Your task to perform on an android device: remove spam from my inbox in the gmail app Image 0: 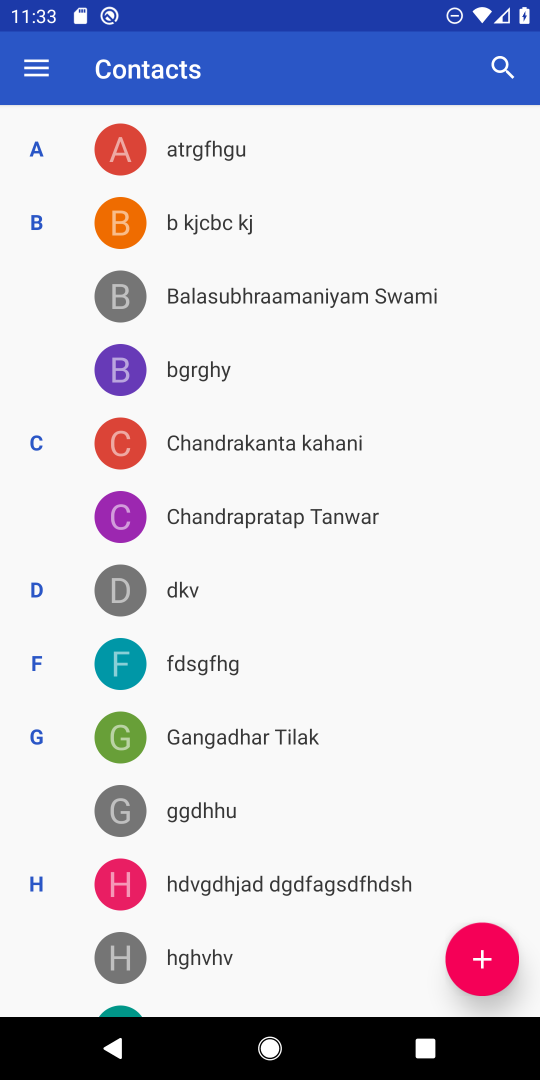
Step 0: press back button
Your task to perform on an android device: remove spam from my inbox in the gmail app Image 1: 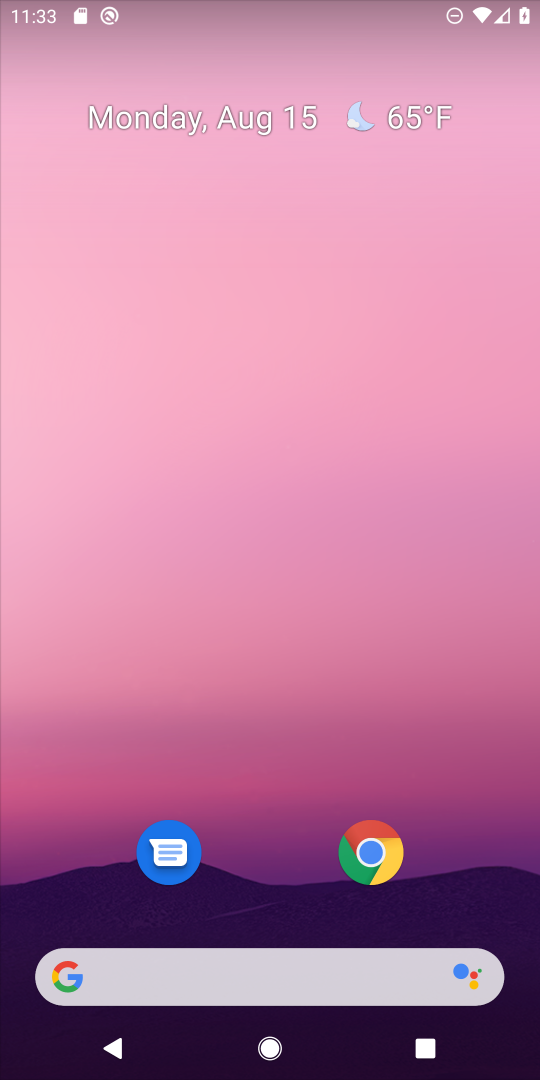
Step 1: drag from (253, 835) to (348, 10)
Your task to perform on an android device: remove spam from my inbox in the gmail app Image 2: 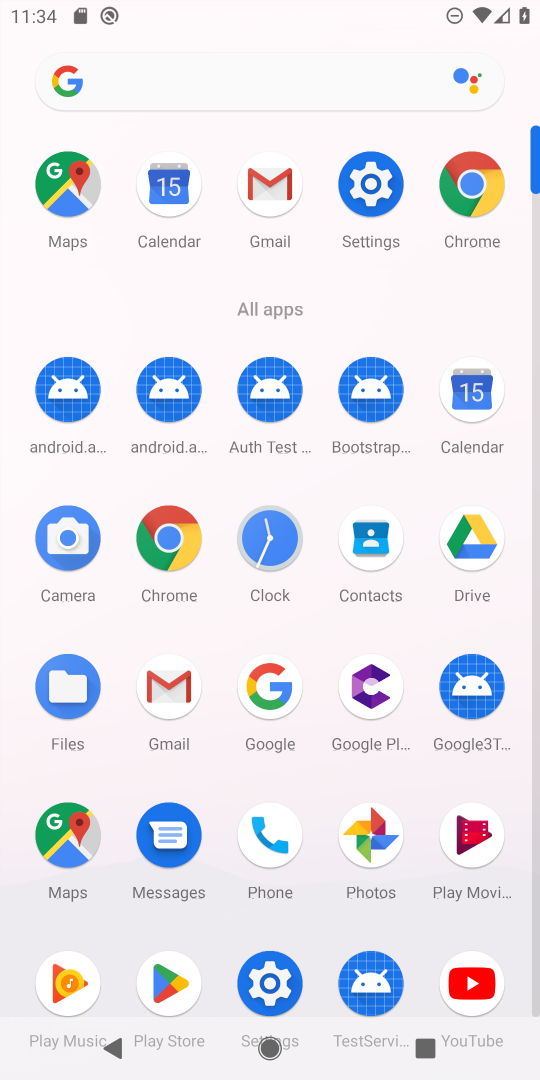
Step 2: click (264, 196)
Your task to perform on an android device: remove spam from my inbox in the gmail app Image 3: 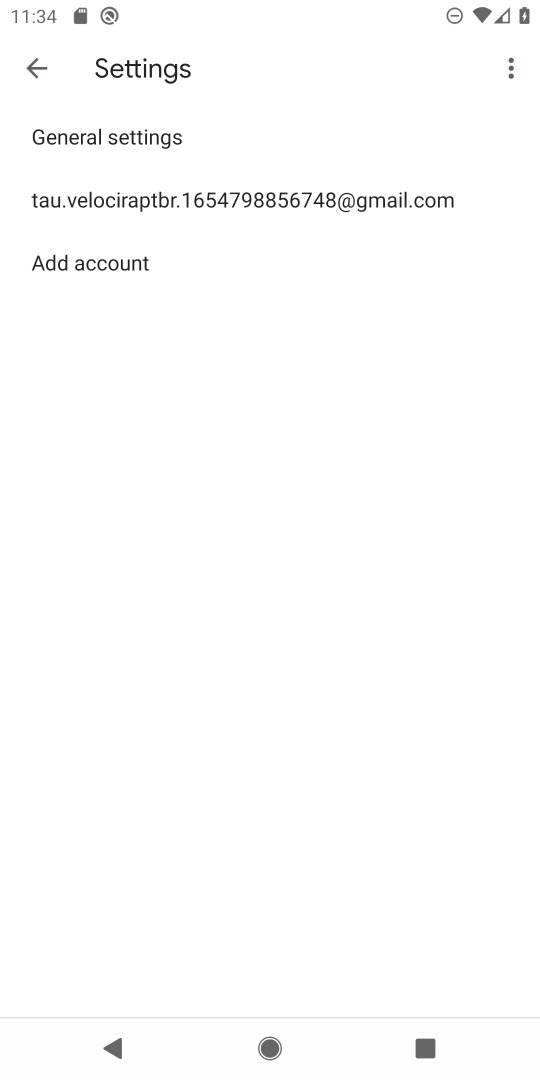
Step 3: press back button
Your task to perform on an android device: remove spam from my inbox in the gmail app Image 4: 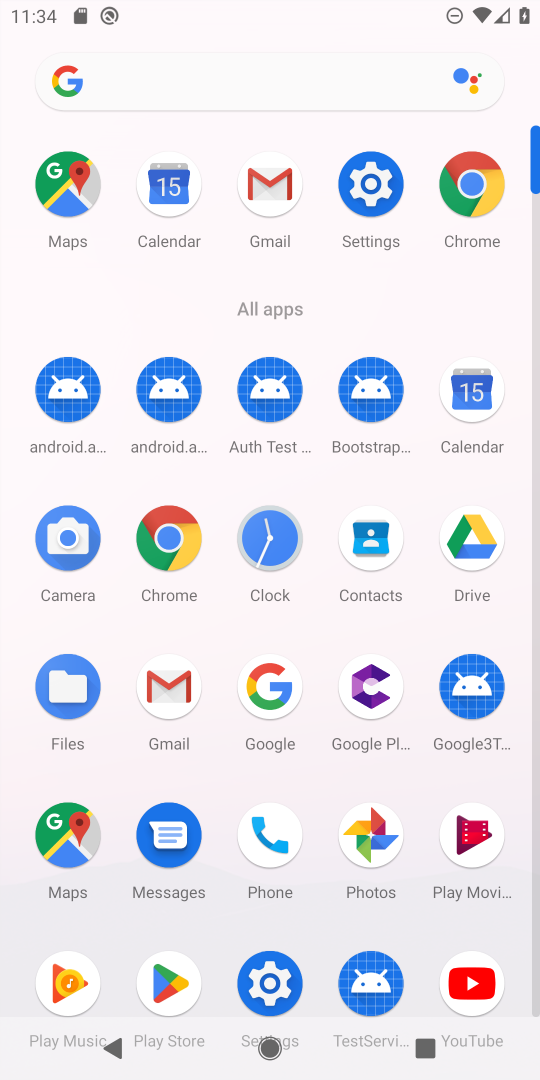
Step 4: click (240, 190)
Your task to perform on an android device: remove spam from my inbox in the gmail app Image 5: 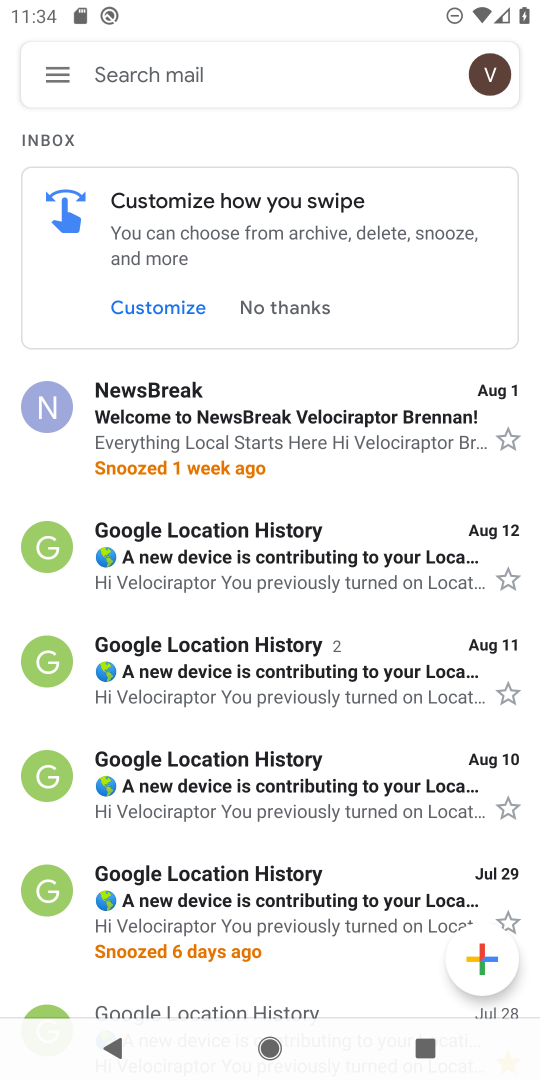
Step 5: click (65, 66)
Your task to perform on an android device: remove spam from my inbox in the gmail app Image 6: 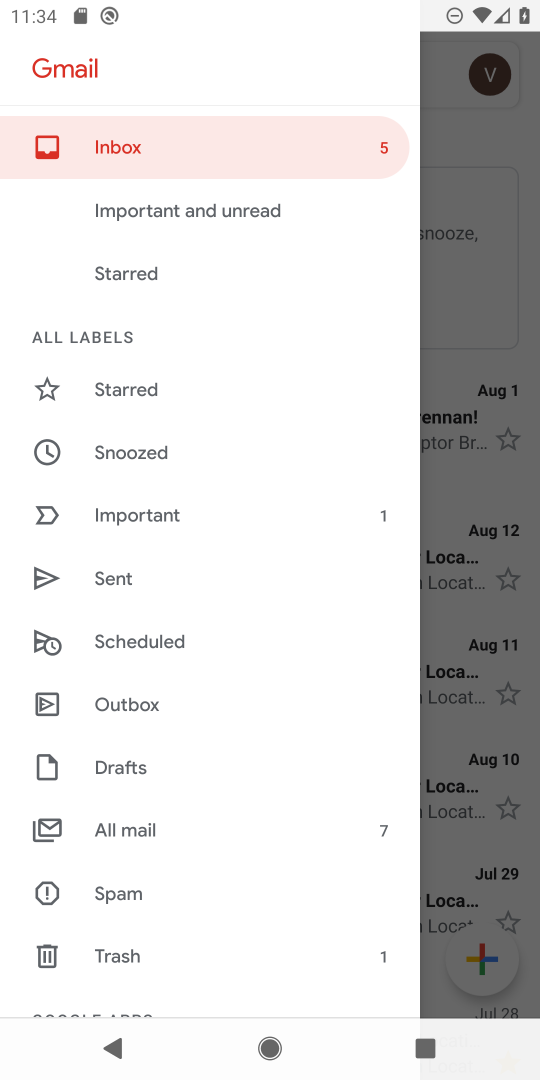
Step 6: click (121, 890)
Your task to perform on an android device: remove spam from my inbox in the gmail app Image 7: 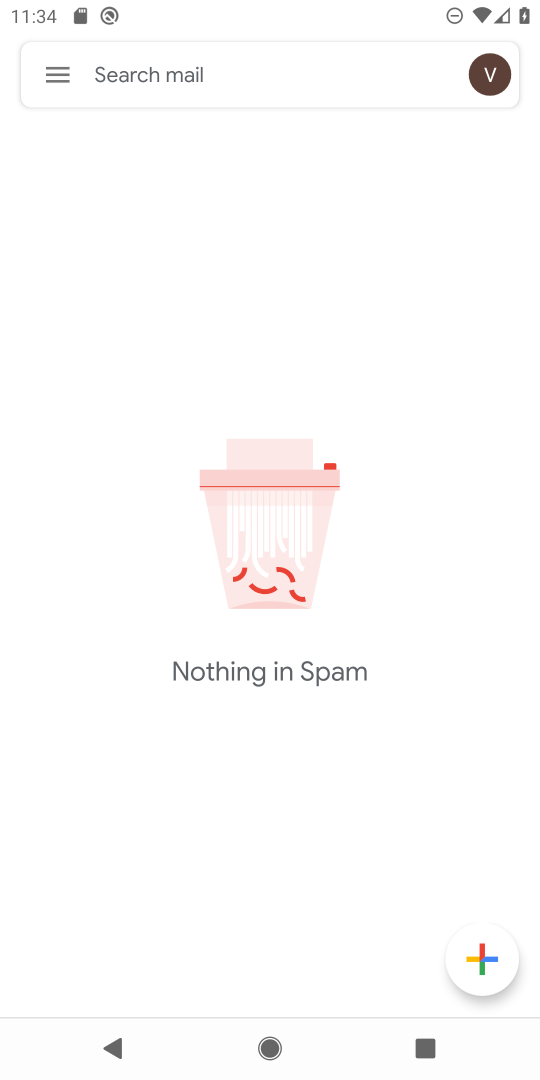
Step 7: task complete